Your task to perform on an android device: turn off smart reply in the gmail app Image 0: 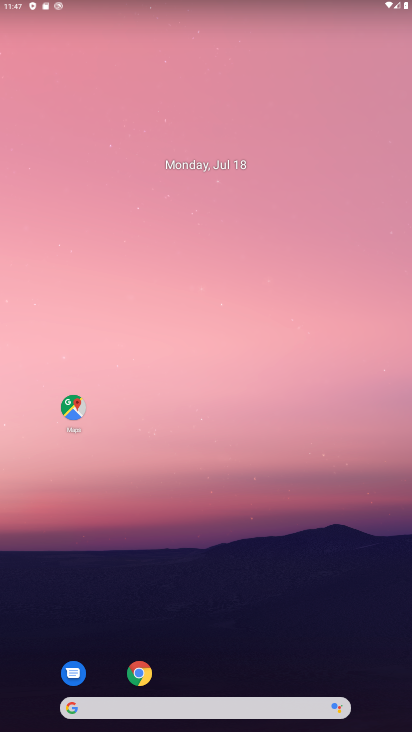
Step 0: press home button
Your task to perform on an android device: turn off smart reply in the gmail app Image 1: 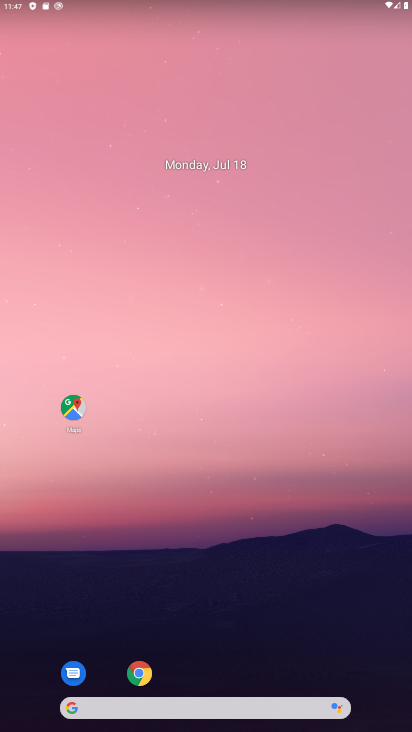
Step 1: drag from (218, 676) to (23, 352)
Your task to perform on an android device: turn off smart reply in the gmail app Image 2: 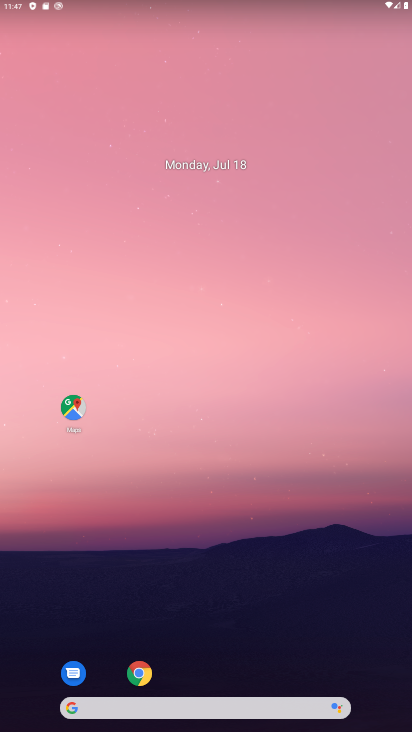
Step 2: drag from (237, 681) to (224, 22)
Your task to perform on an android device: turn off smart reply in the gmail app Image 3: 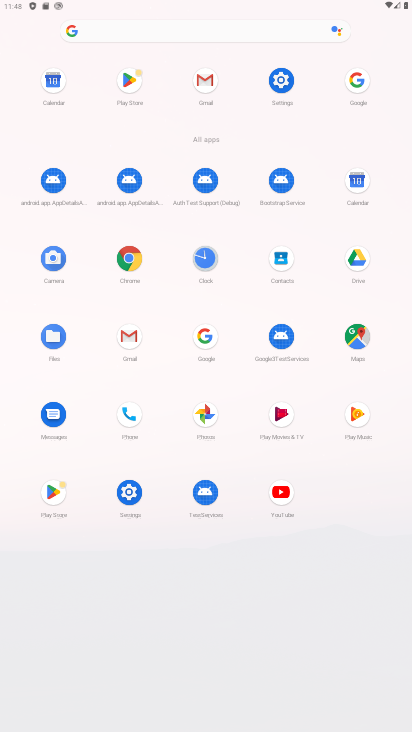
Step 3: click (204, 80)
Your task to perform on an android device: turn off smart reply in the gmail app Image 4: 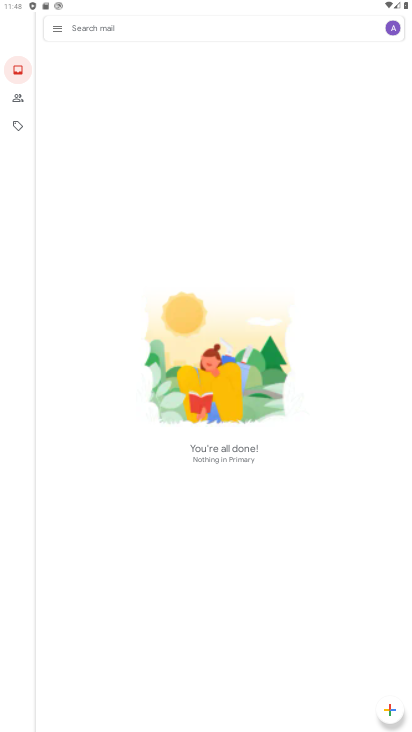
Step 4: click (51, 28)
Your task to perform on an android device: turn off smart reply in the gmail app Image 5: 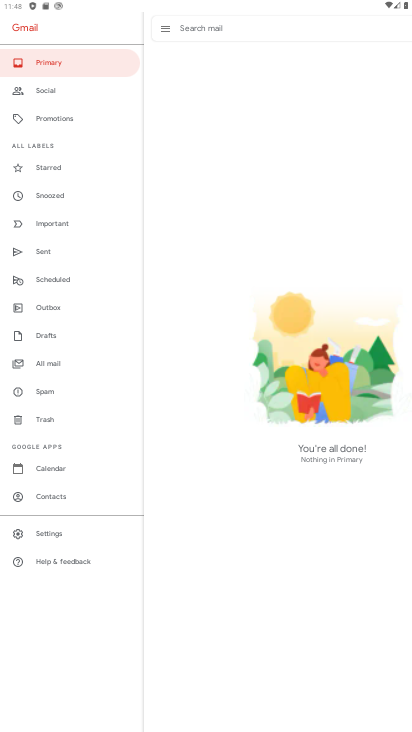
Step 5: click (45, 528)
Your task to perform on an android device: turn off smart reply in the gmail app Image 6: 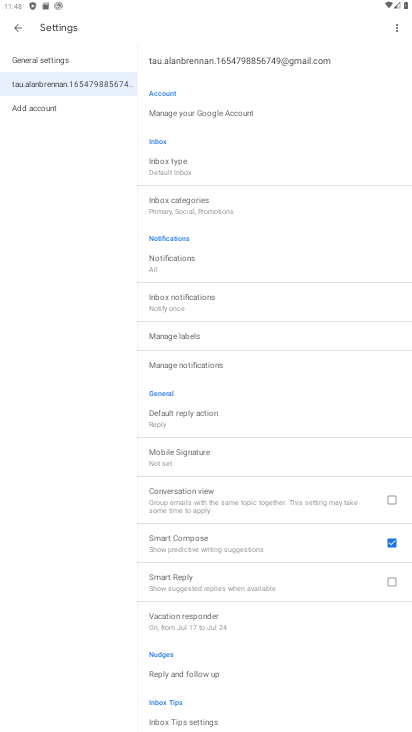
Step 6: task complete